Your task to perform on an android device: Toggle the flashlight Image 0: 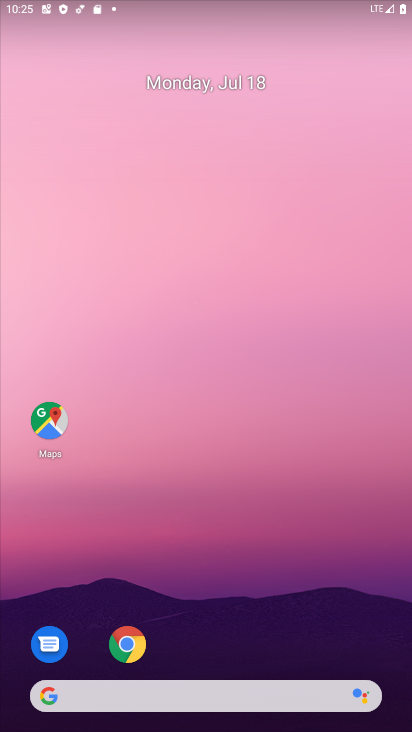
Step 0: drag from (284, 2) to (321, 436)
Your task to perform on an android device: Toggle the flashlight Image 1: 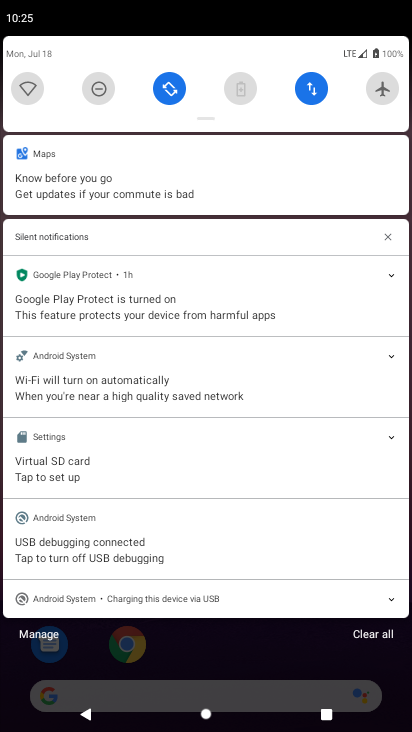
Step 1: task complete